Your task to perform on an android device: check storage Image 0: 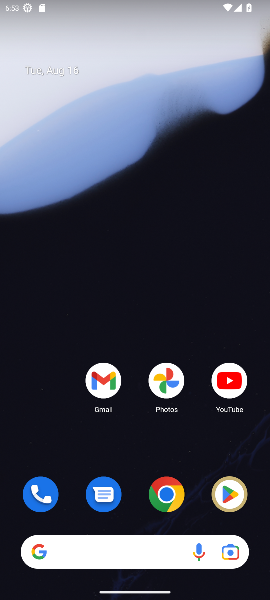
Step 0: drag from (50, 384) to (73, 146)
Your task to perform on an android device: check storage Image 1: 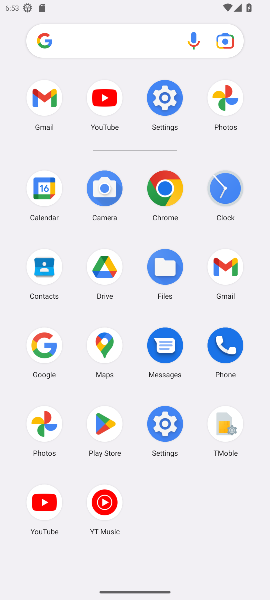
Step 1: click (162, 106)
Your task to perform on an android device: check storage Image 2: 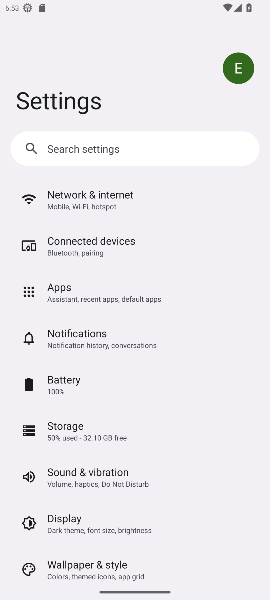
Step 2: click (82, 428)
Your task to perform on an android device: check storage Image 3: 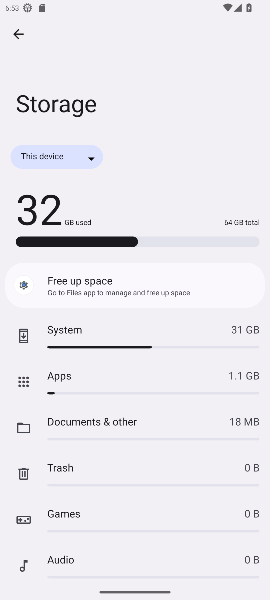
Step 3: task complete